Your task to perform on an android device: Go to calendar. Show me events next week Image 0: 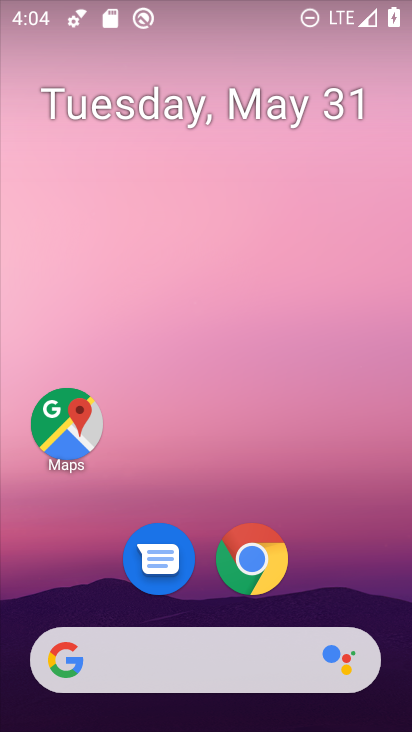
Step 0: drag from (194, 716) to (203, 165)
Your task to perform on an android device: Go to calendar. Show me events next week Image 1: 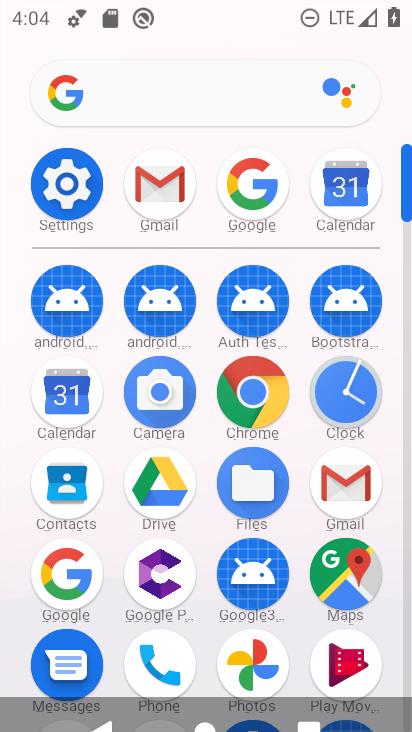
Step 1: click (68, 405)
Your task to perform on an android device: Go to calendar. Show me events next week Image 2: 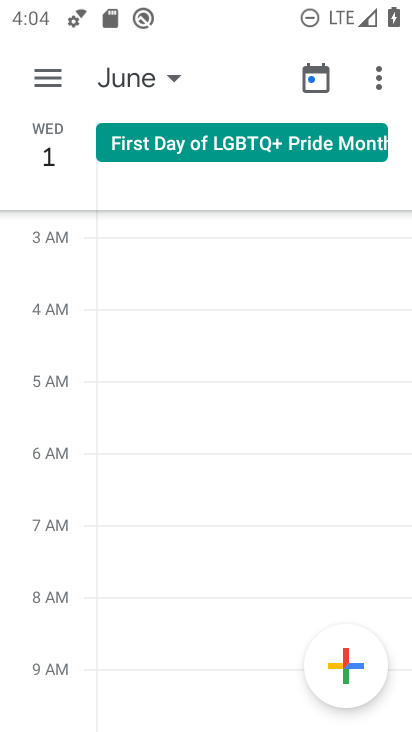
Step 2: click (174, 77)
Your task to perform on an android device: Go to calendar. Show me events next week Image 3: 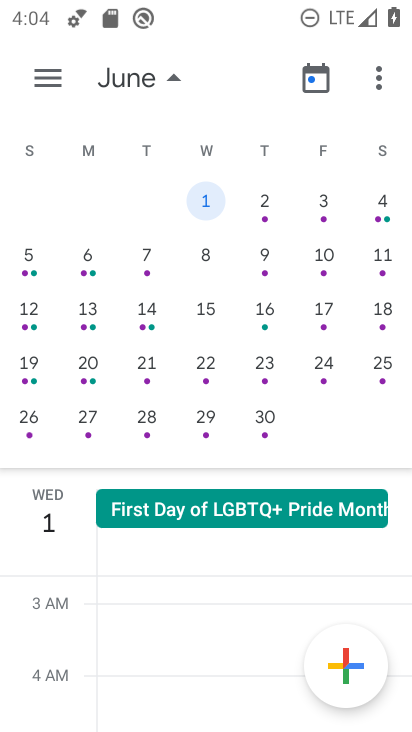
Step 3: click (90, 253)
Your task to perform on an android device: Go to calendar. Show me events next week Image 4: 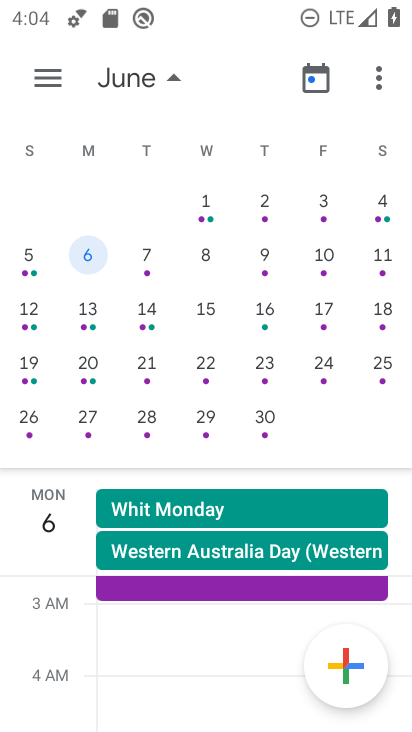
Step 4: click (53, 83)
Your task to perform on an android device: Go to calendar. Show me events next week Image 5: 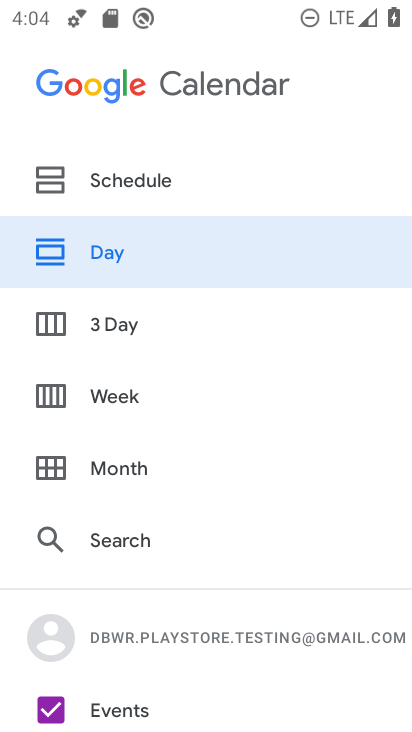
Step 5: click (117, 390)
Your task to perform on an android device: Go to calendar. Show me events next week Image 6: 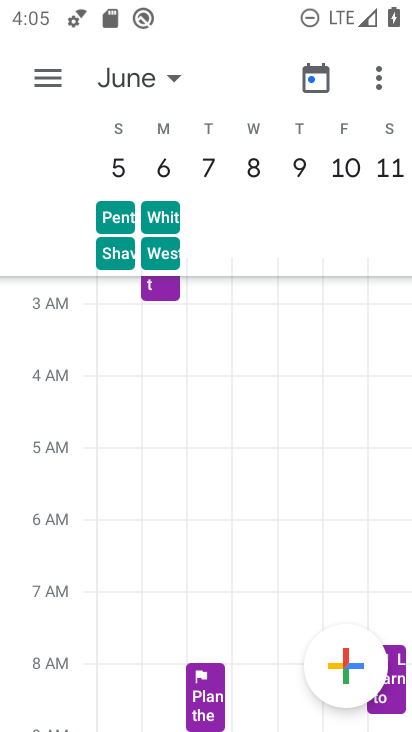
Step 6: task complete